Your task to perform on an android device: check data usage Image 0: 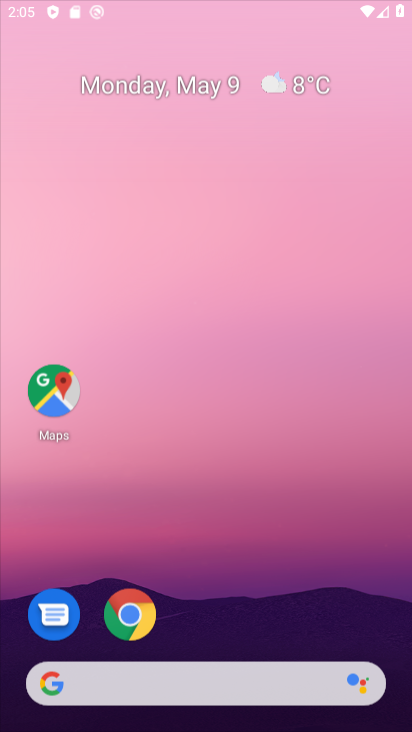
Step 0: drag from (249, 176) to (241, 103)
Your task to perform on an android device: check data usage Image 1: 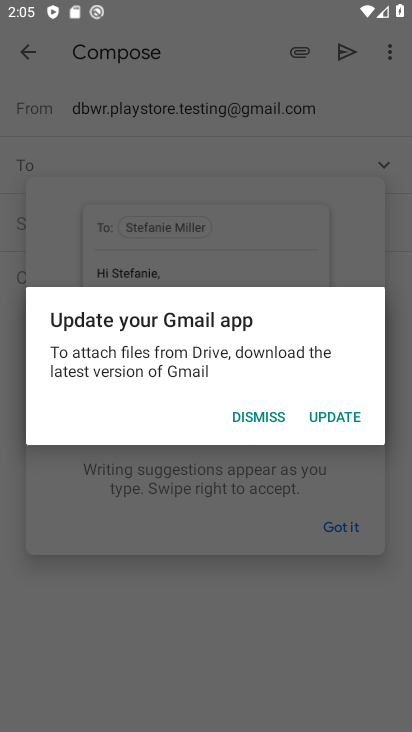
Step 1: press home button
Your task to perform on an android device: check data usage Image 2: 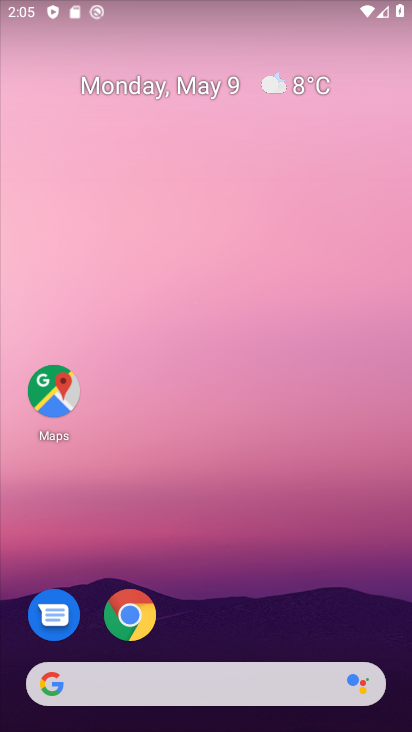
Step 2: drag from (339, 621) to (335, 27)
Your task to perform on an android device: check data usage Image 3: 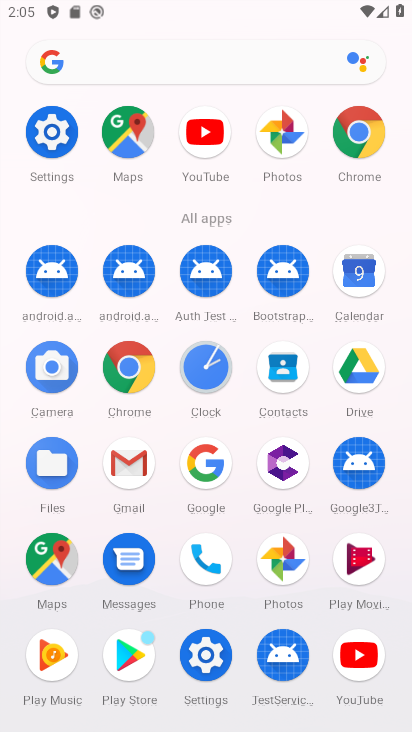
Step 3: click (53, 128)
Your task to perform on an android device: check data usage Image 4: 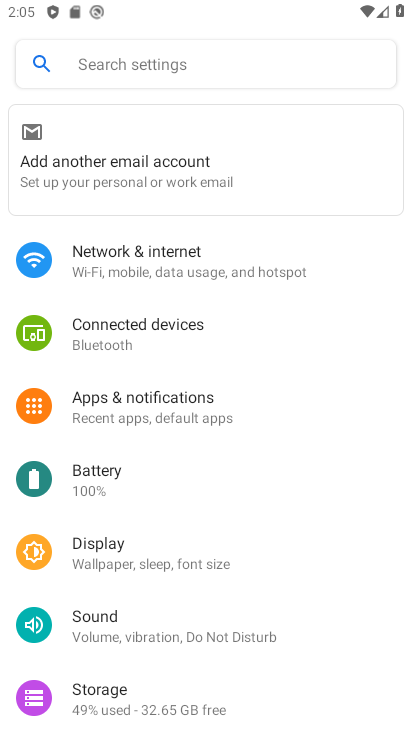
Step 4: click (222, 278)
Your task to perform on an android device: check data usage Image 5: 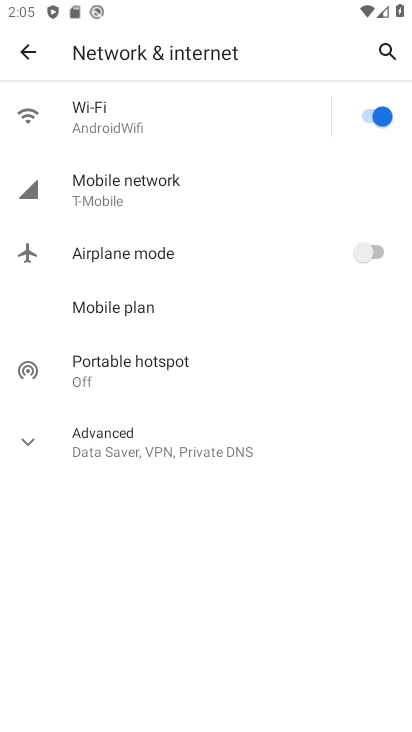
Step 5: click (176, 112)
Your task to perform on an android device: check data usage Image 6: 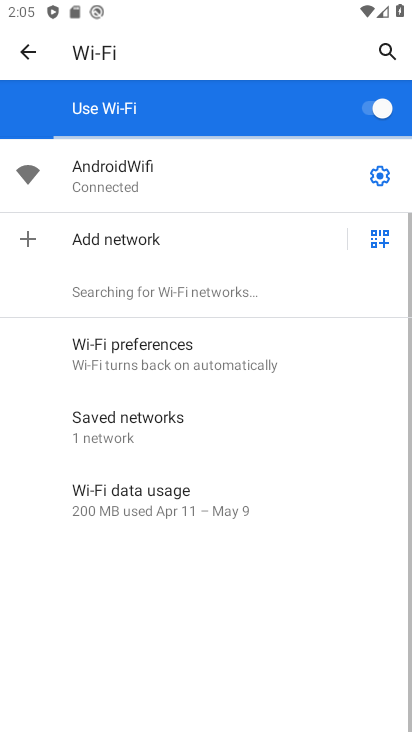
Step 6: click (192, 504)
Your task to perform on an android device: check data usage Image 7: 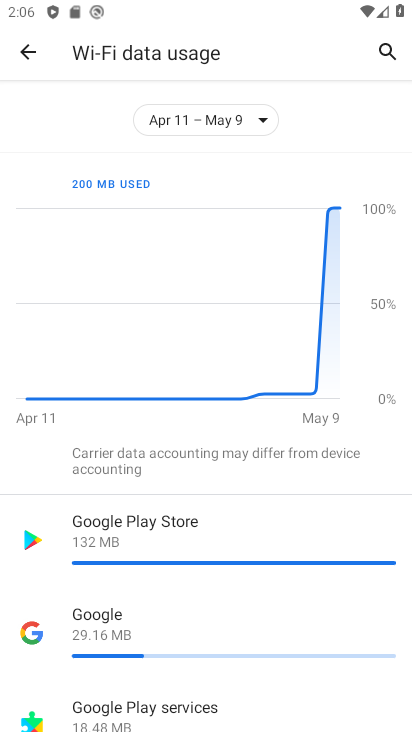
Step 7: task complete